Your task to perform on an android device: change the clock display to digital Image 0: 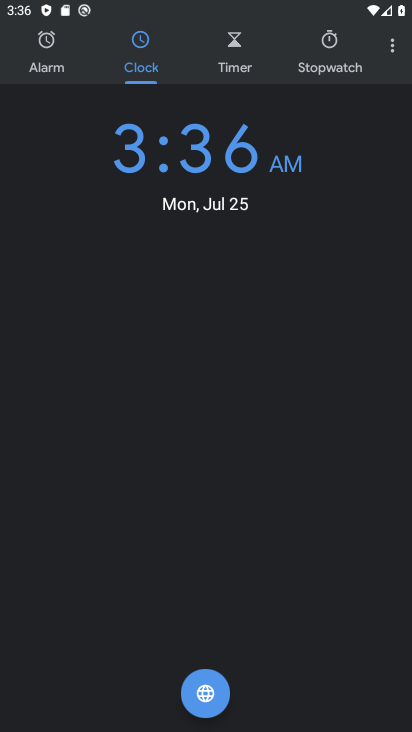
Step 0: press home button
Your task to perform on an android device: change the clock display to digital Image 1: 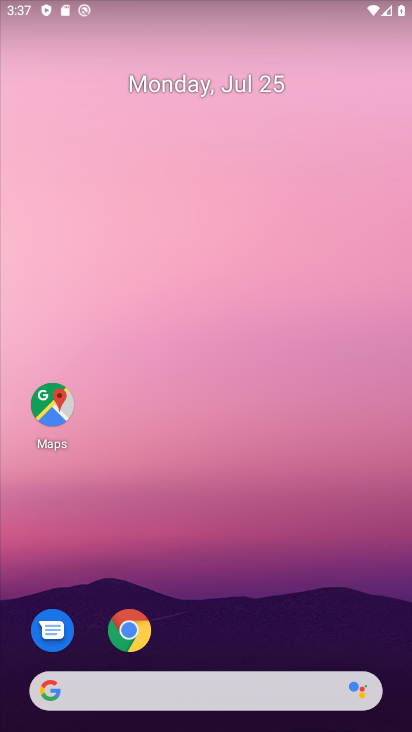
Step 1: drag from (252, 638) to (254, 93)
Your task to perform on an android device: change the clock display to digital Image 2: 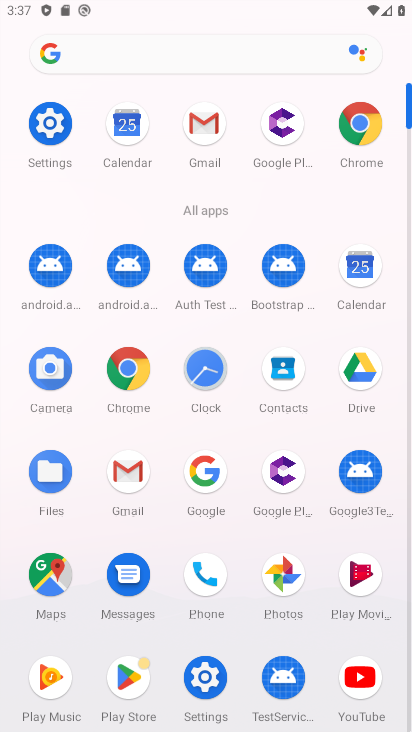
Step 2: click (193, 369)
Your task to perform on an android device: change the clock display to digital Image 3: 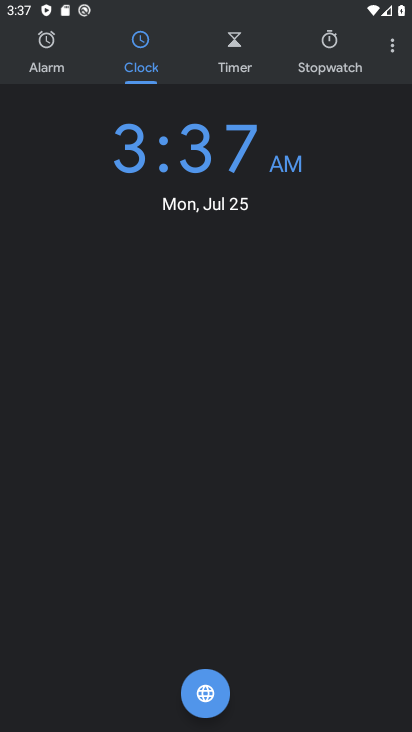
Step 3: click (393, 60)
Your task to perform on an android device: change the clock display to digital Image 4: 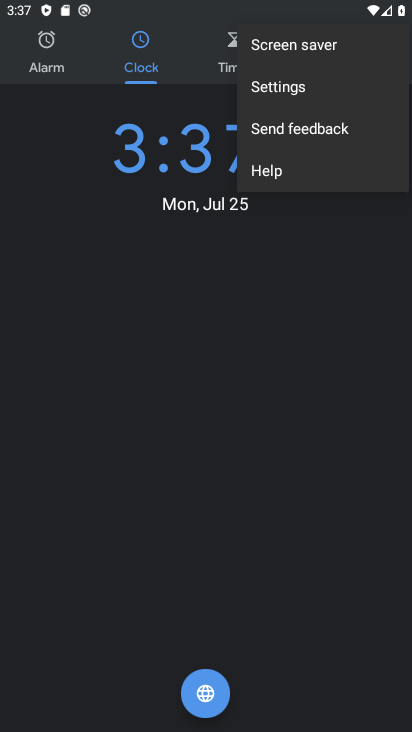
Step 4: click (293, 91)
Your task to perform on an android device: change the clock display to digital Image 5: 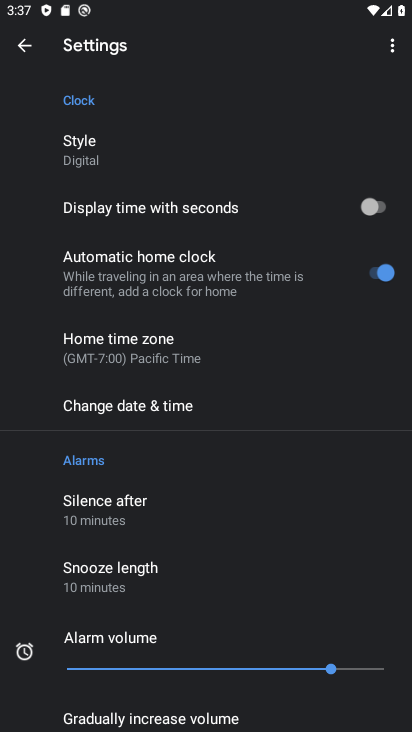
Step 5: click (167, 163)
Your task to perform on an android device: change the clock display to digital Image 6: 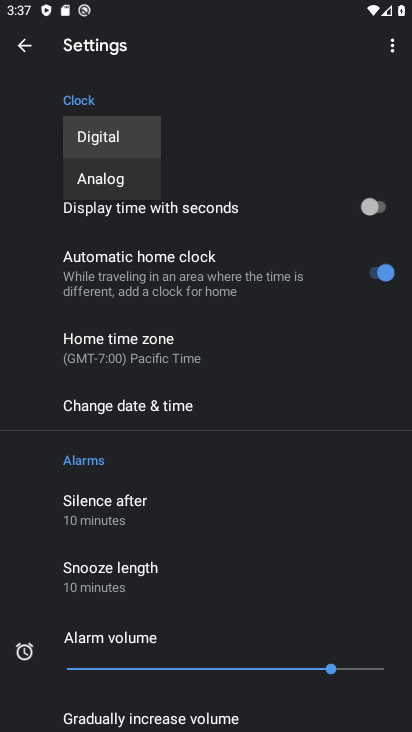
Step 6: task complete